Your task to perform on an android device: change the clock style Image 0: 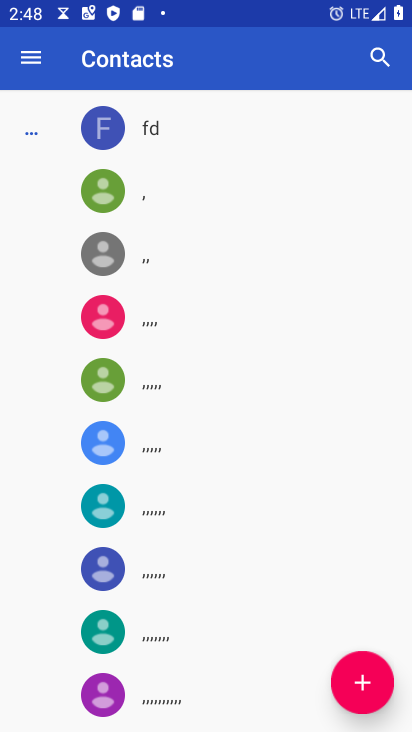
Step 0: press back button
Your task to perform on an android device: change the clock style Image 1: 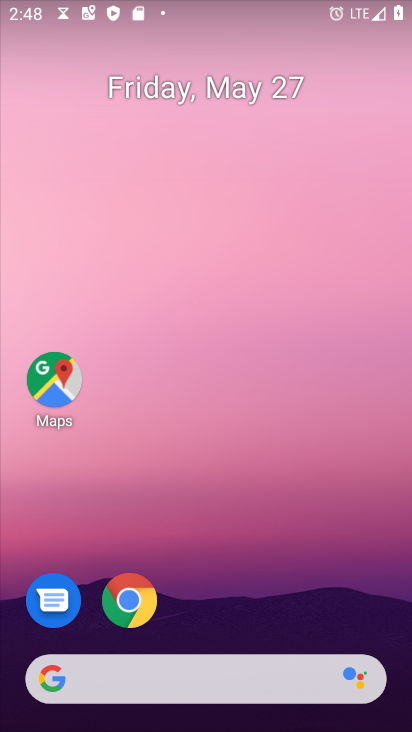
Step 1: drag from (259, 530) to (217, 11)
Your task to perform on an android device: change the clock style Image 2: 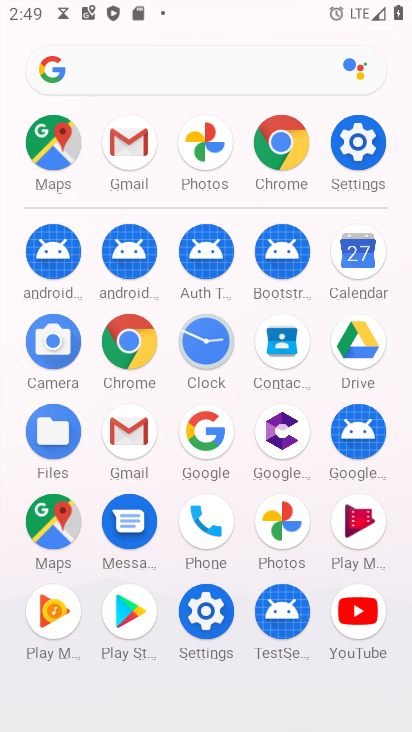
Step 2: click (199, 333)
Your task to perform on an android device: change the clock style Image 3: 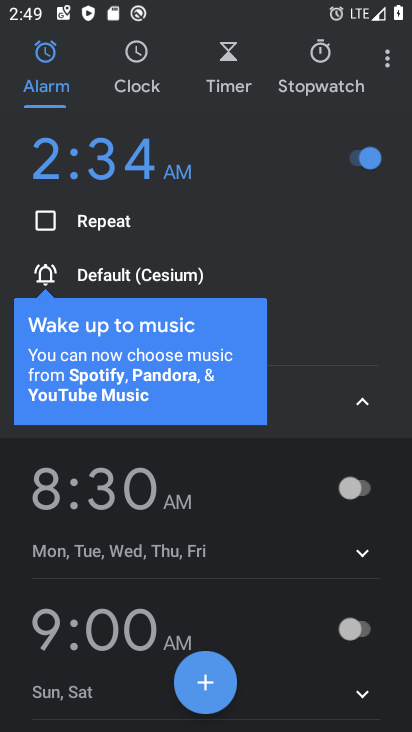
Step 3: drag from (383, 62) to (260, 118)
Your task to perform on an android device: change the clock style Image 4: 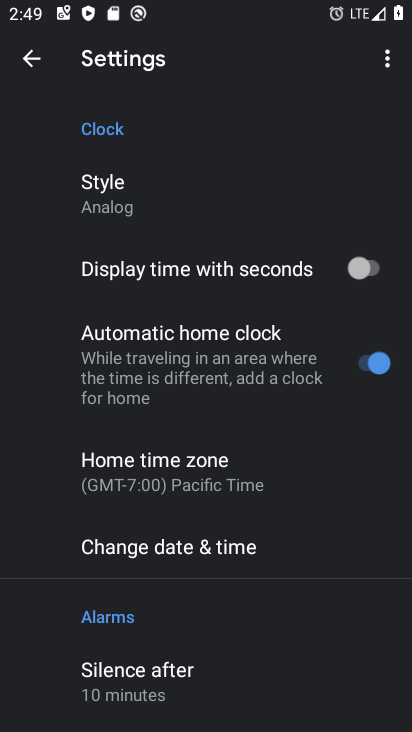
Step 4: click (121, 204)
Your task to perform on an android device: change the clock style Image 5: 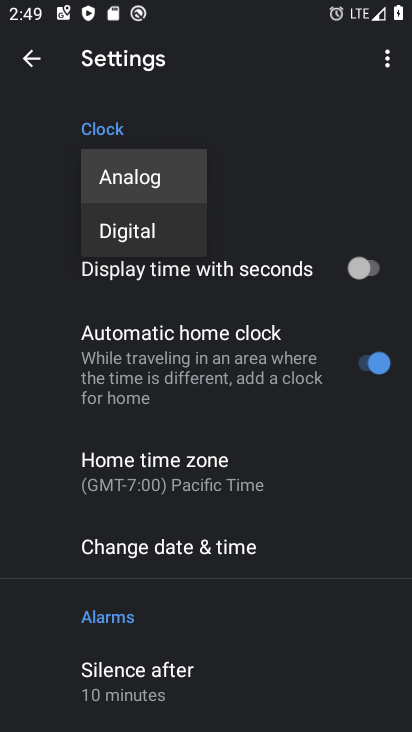
Step 5: click (135, 223)
Your task to perform on an android device: change the clock style Image 6: 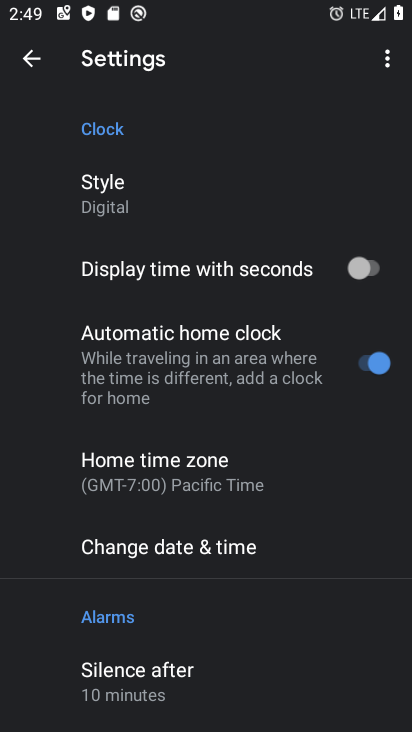
Step 6: task complete